Your task to perform on an android device: find which apps use the phone's location Image 0: 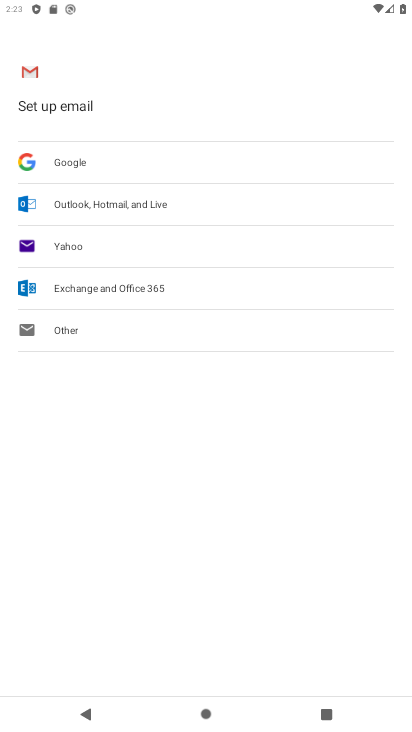
Step 0: press home button
Your task to perform on an android device: find which apps use the phone's location Image 1: 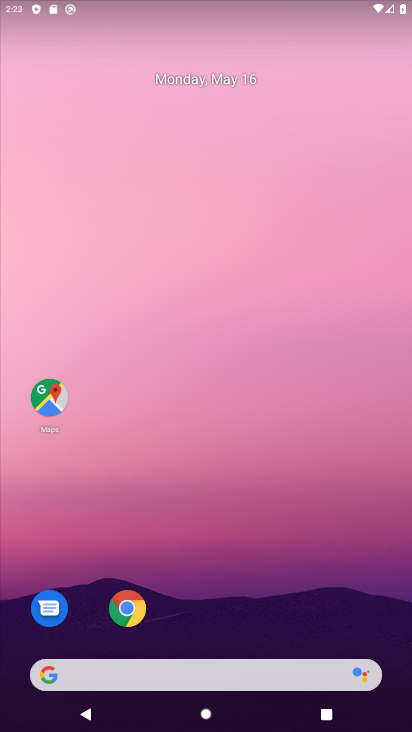
Step 1: drag from (184, 631) to (166, 218)
Your task to perform on an android device: find which apps use the phone's location Image 2: 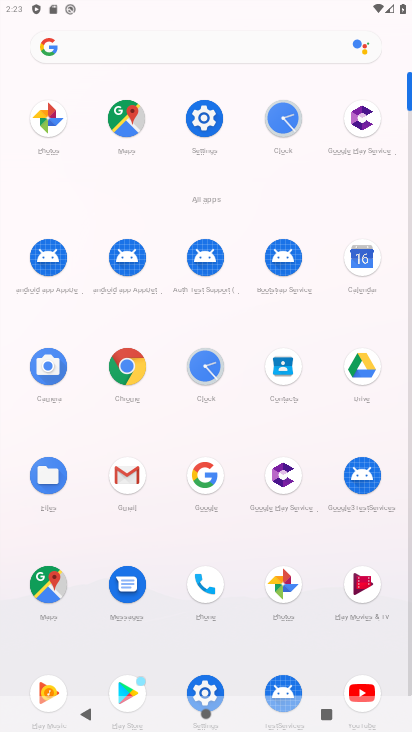
Step 2: click (211, 130)
Your task to perform on an android device: find which apps use the phone's location Image 3: 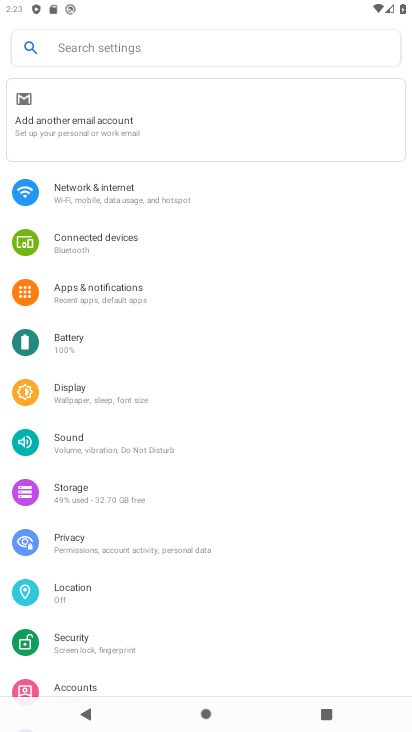
Step 3: click (124, 603)
Your task to perform on an android device: find which apps use the phone's location Image 4: 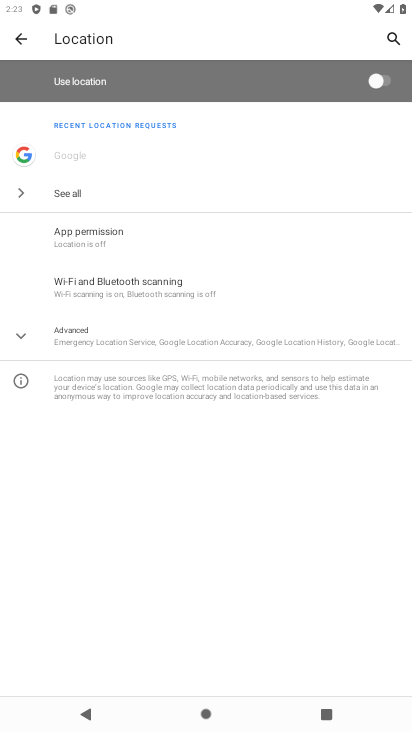
Step 4: click (133, 186)
Your task to perform on an android device: find which apps use the phone's location Image 5: 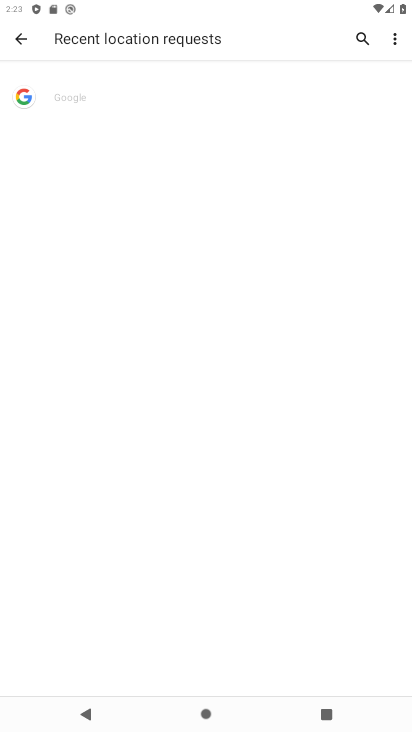
Step 5: task complete